Your task to perform on an android device: Go to Wikipedia Image 0: 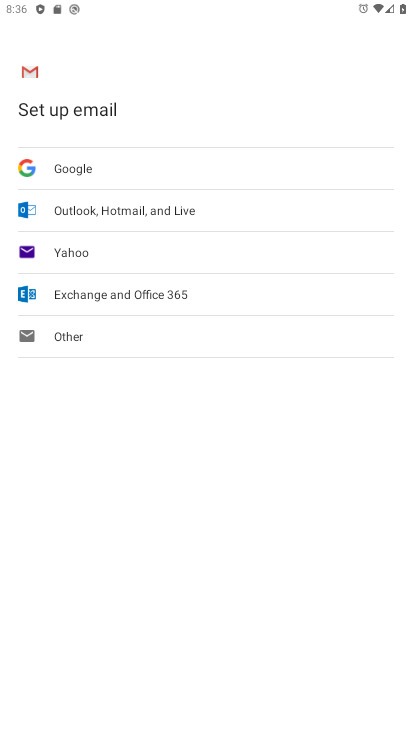
Step 0: press home button
Your task to perform on an android device: Go to Wikipedia Image 1: 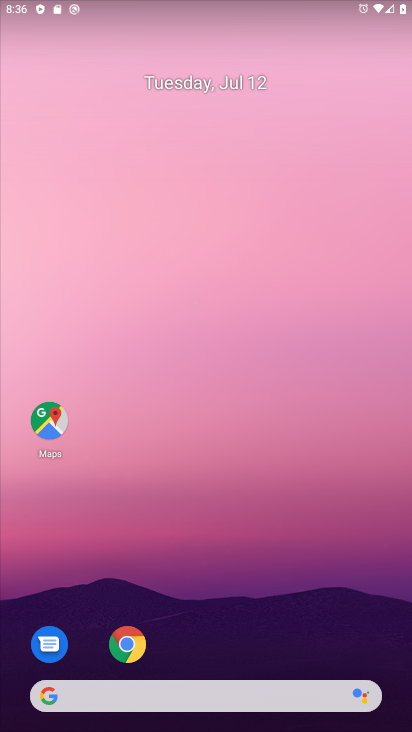
Step 1: click (151, 700)
Your task to perform on an android device: Go to Wikipedia Image 2: 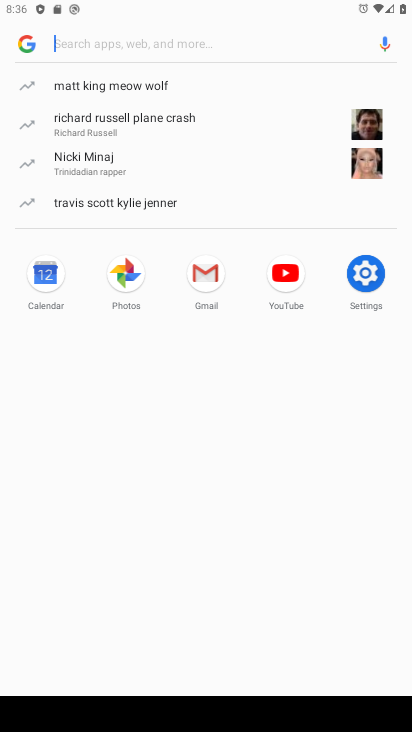
Step 2: type " Wikipedia"
Your task to perform on an android device: Go to Wikipedia Image 3: 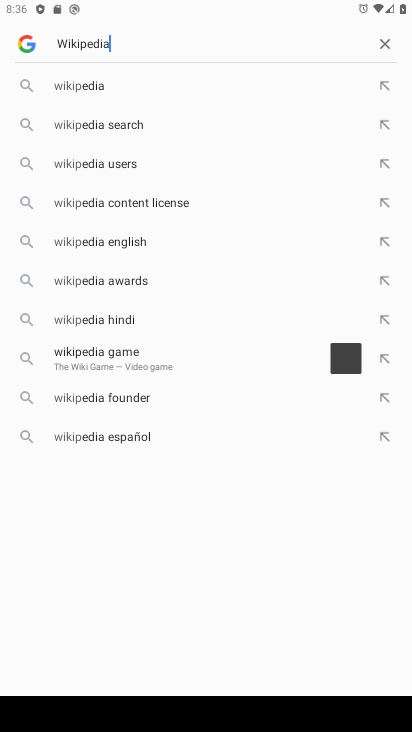
Step 3: type ""
Your task to perform on an android device: Go to Wikipedia Image 4: 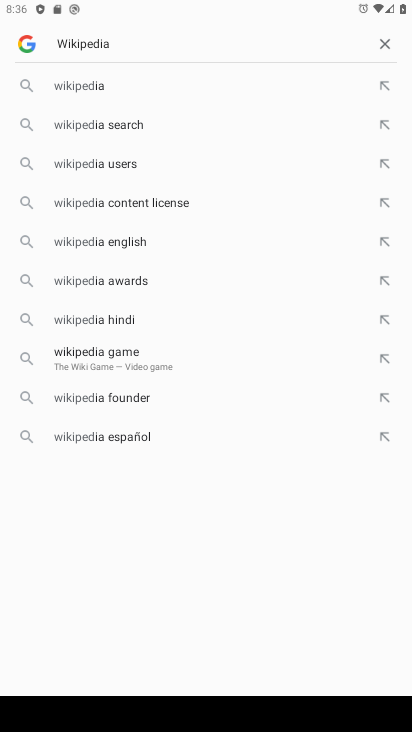
Step 4: click (75, 93)
Your task to perform on an android device: Go to Wikipedia Image 5: 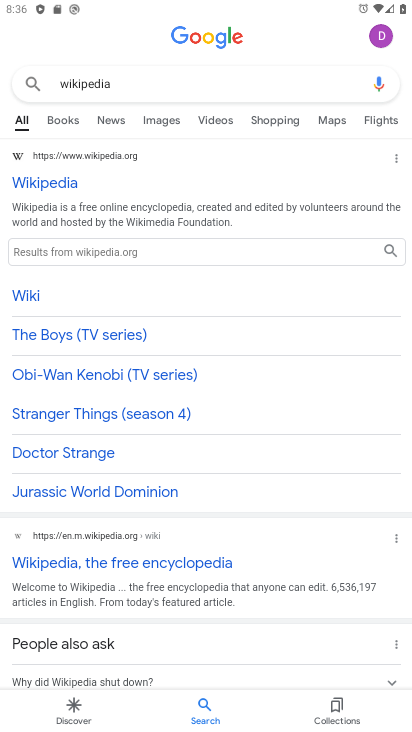
Step 5: task complete